Your task to perform on an android device: Open Google Chrome and click the shortcut for Amazon.com Image 0: 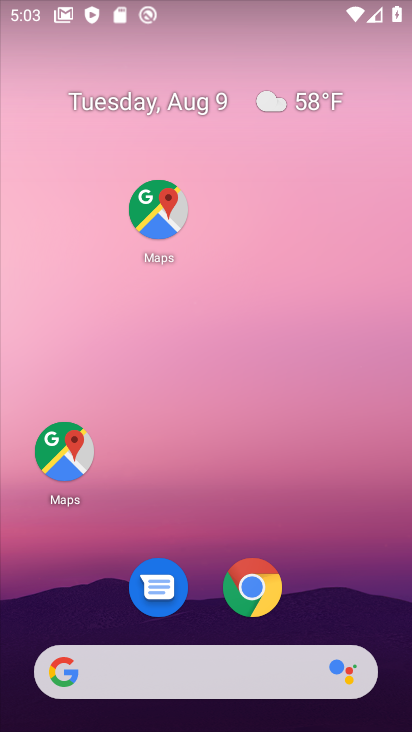
Step 0: drag from (228, 523) to (228, 199)
Your task to perform on an android device: Open Google Chrome and click the shortcut for Amazon.com Image 1: 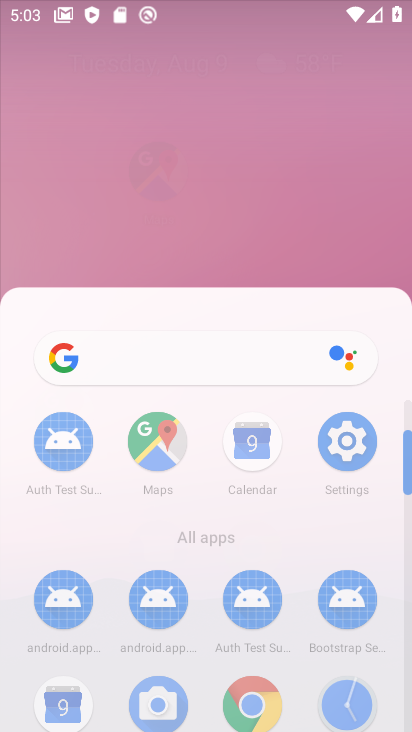
Step 1: drag from (258, 582) to (248, 145)
Your task to perform on an android device: Open Google Chrome and click the shortcut for Amazon.com Image 2: 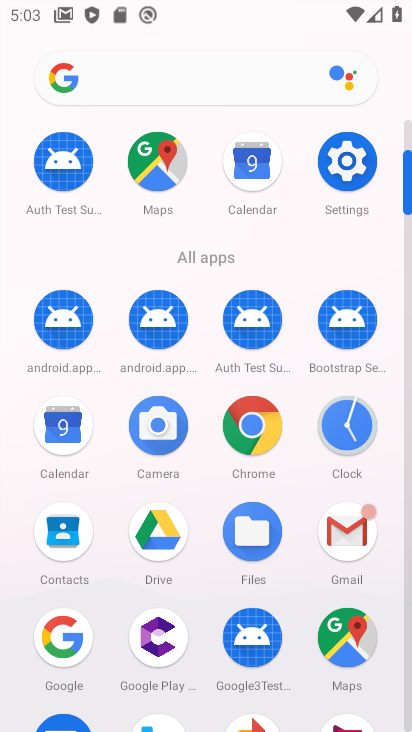
Step 2: click (242, 419)
Your task to perform on an android device: Open Google Chrome and click the shortcut for Amazon.com Image 3: 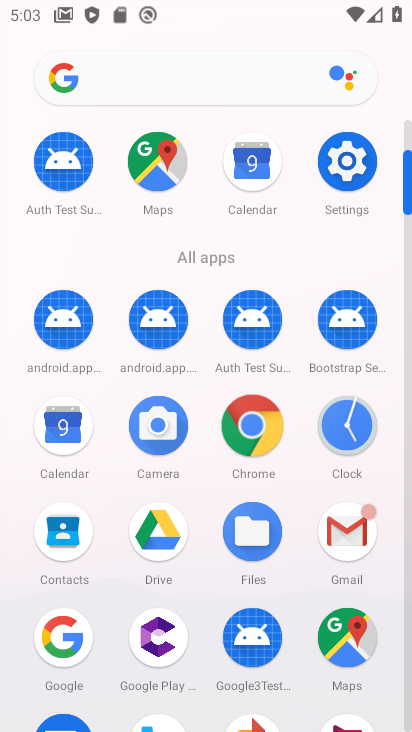
Step 3: click (244, 415)
Your task to perform on an android device: Open Google Chrome and click the shortcut for Amazon.com Image 4: 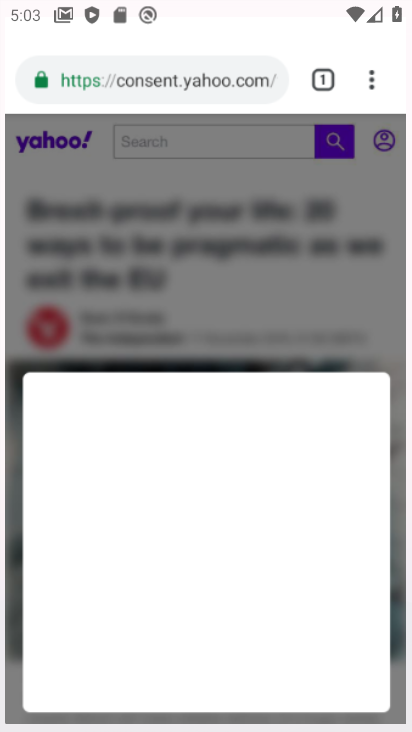
Step 4: click (244, 417)
Your task to perform on an android device: Open Google Chrome and click the shortcut for Amazon.com Image 5: 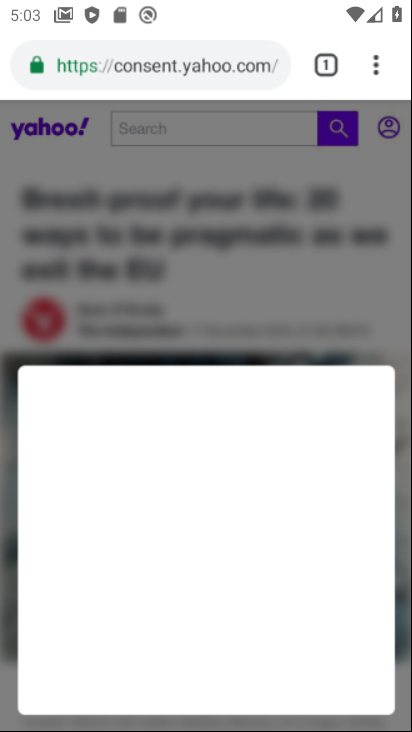
Step 5: click (244, 417)
Your task to perform on an android device: Open Google Chrome and click the shortcut for Amazon.com Image 6: 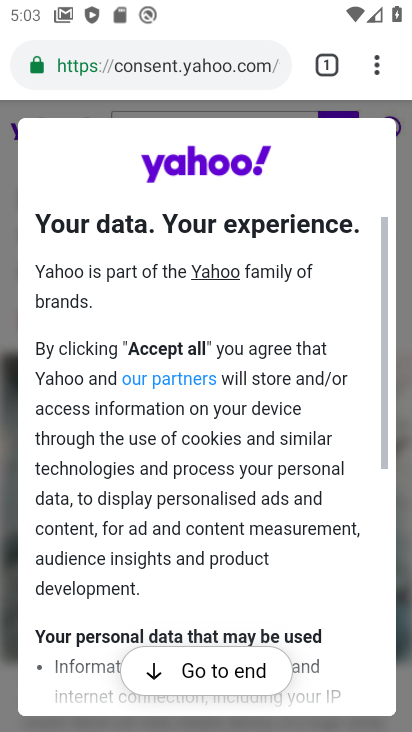
Step 6: drag from (375, 49) to (130, 121)
Your task to perform on an android device: Open Google Chrome and click the shortcut for Amazon.com Image 7: 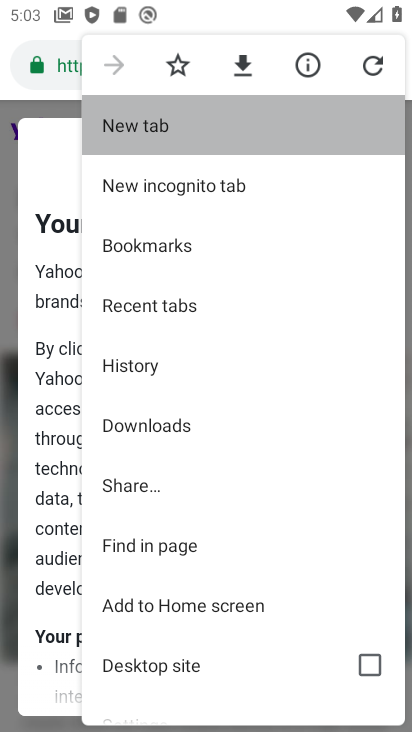
Step 7: click (130, 121)
Your task to perform on an android device: Open Google Chrome and click the shortcut for Amazon.com Image 8: 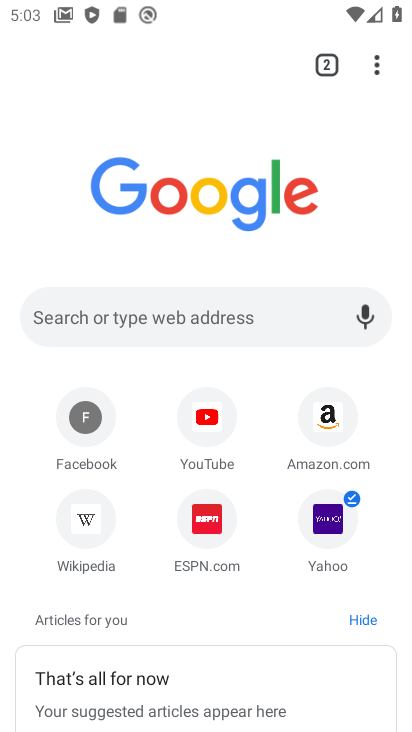
Step 8: click (331, 387)
Your task to perform on an android device: Open Google Chrome and click the shortcut for Amazon.com Image 9: 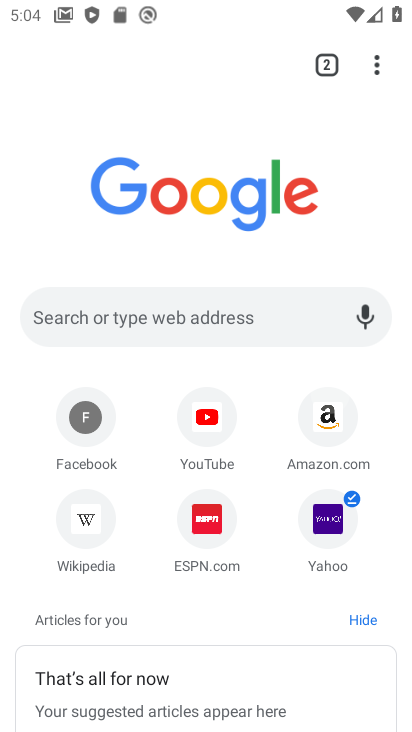
Step 9: click (335, 423)
Your task to perform on an android device: Open Google Chrome and click the shortcut for Amazon.com Image 10: 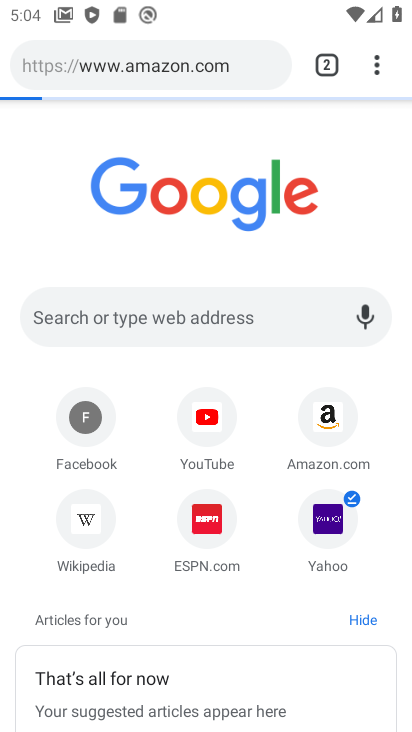
Step 10: click (335, 424)
Your task to perform on an android device: Open Google Chrome and click the shortcut for Amazon.com Image 11: 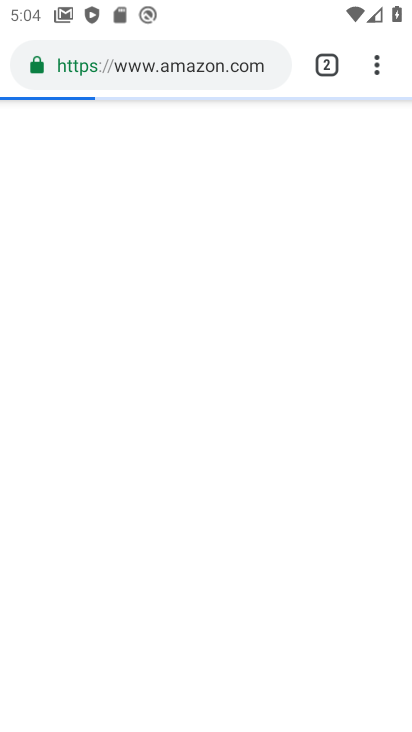
Step 11: click (346, 442)
Your task to perform on an android device: Open Google Chrome and click the shortcut for Amazon.com Image 12: 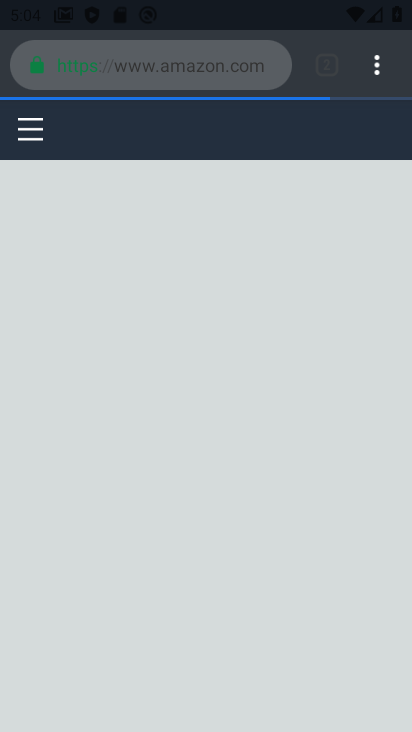
Step 12: task complete